Your task to perform on an android device: Empty the shopping cart on newegg.com. Search for "macbook pro 13 inch" on newegg.com, select the first entry, add it to the cart, then select checkout. Image 0: 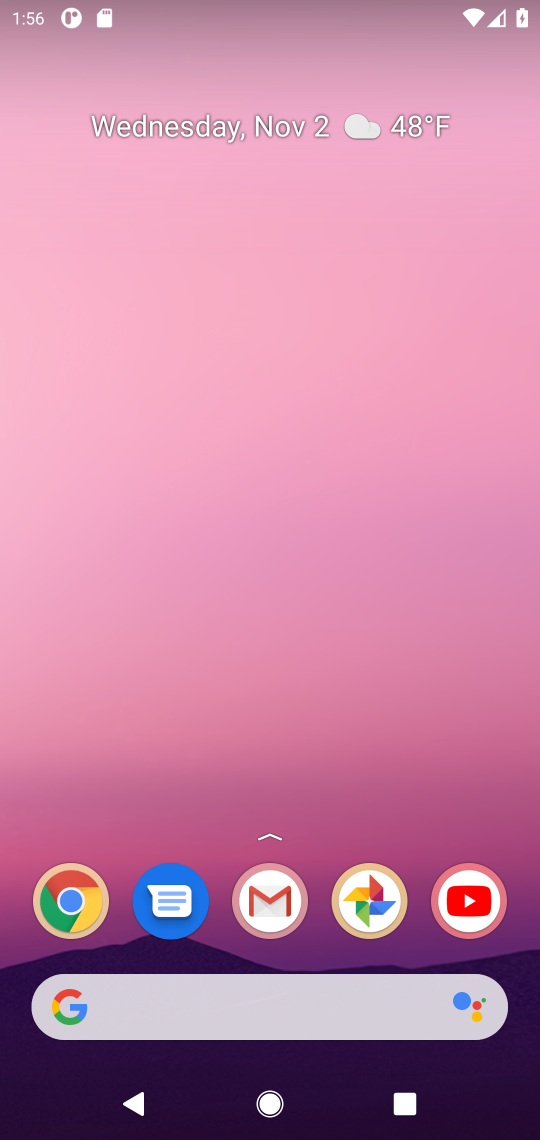
Step 0: drag from (318, 957) to (393, 219)
Your task to perform on an android device: Empty the shopping cart on newegg.com. Search for "macbook pro 13 inch" on newegg.com, select the first entry, add it to the cart, then select checkout. Image 1: 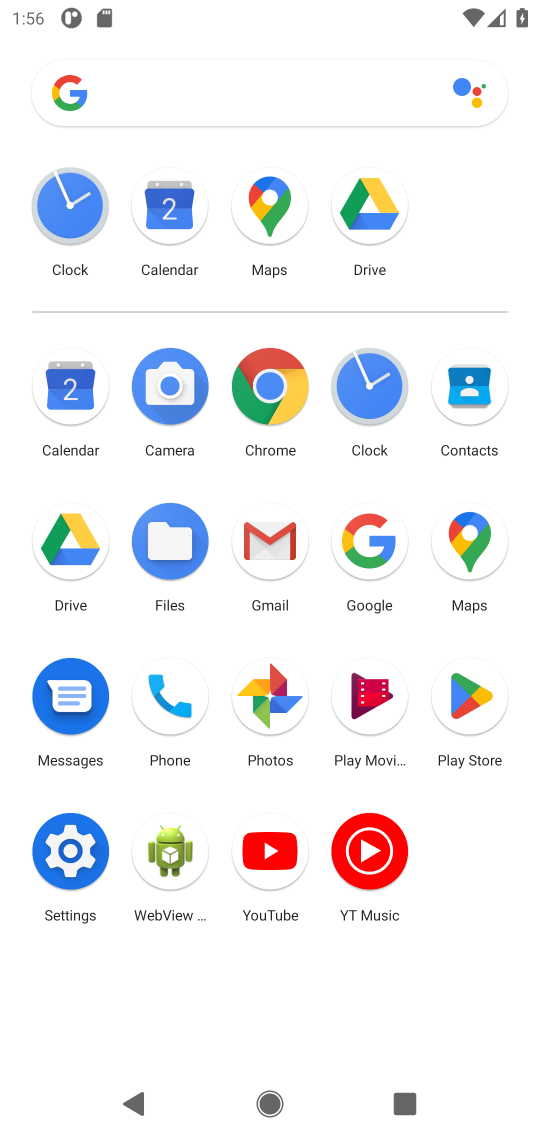
Step 1: click (271, 387)
Your task to perform on an android device: Empty the shopping cart on newegg.com. Search for "macbook pro 13 inch" on newegg.com, select the first entry, add it to the cart, then select checkout. Image 2: 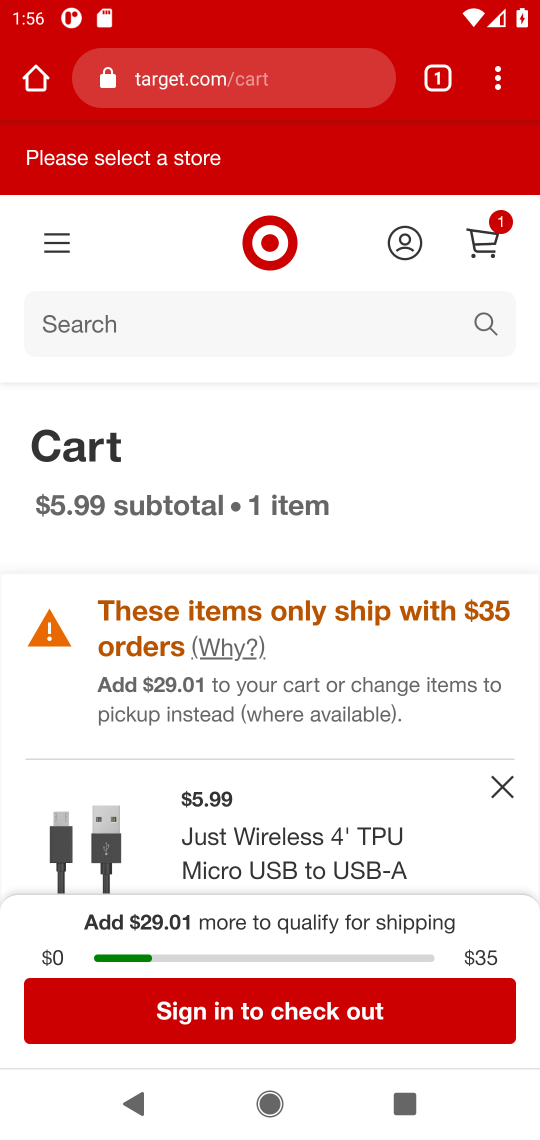
Step 2: click (341, 91)
Your task to perform on an android device: Empty the shopping cart on newegg.com. Search for "macbook pro 13 inch" on newegg.com, select the first entry, add it to the cart, then select checkout. Image 3: 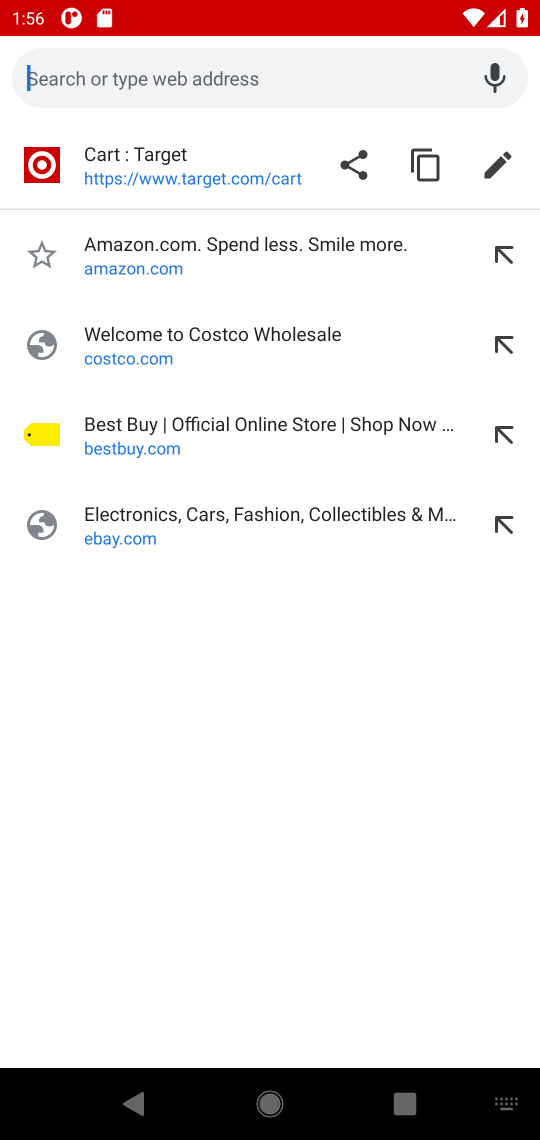
Step 3: type "newegg.com"
Your task to perform on an android device: Empty the shopping cart on newegg.com. Search for "macbook pro 13 inch" on newegg.com, select the first entry, add it to the cart, then select checkout. Image 4: 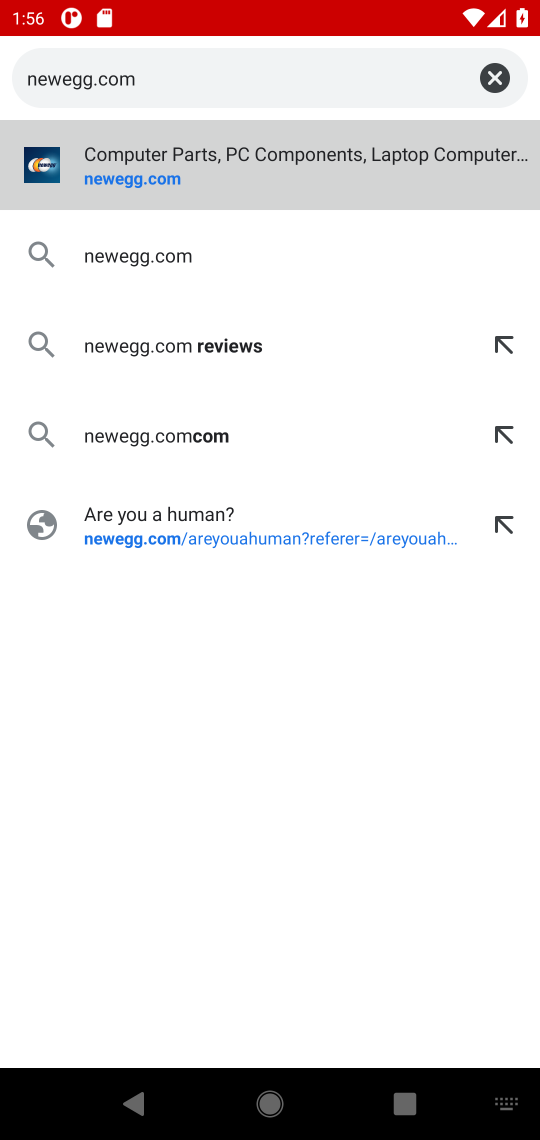
Step 4: press enter
Your task to perform on an android device: Empty the shopping cart on newegg.com. Search for "macbook pro 13 inch" on newegg.com, select the first entry, add it to the cart, then select checkout. Image 5: 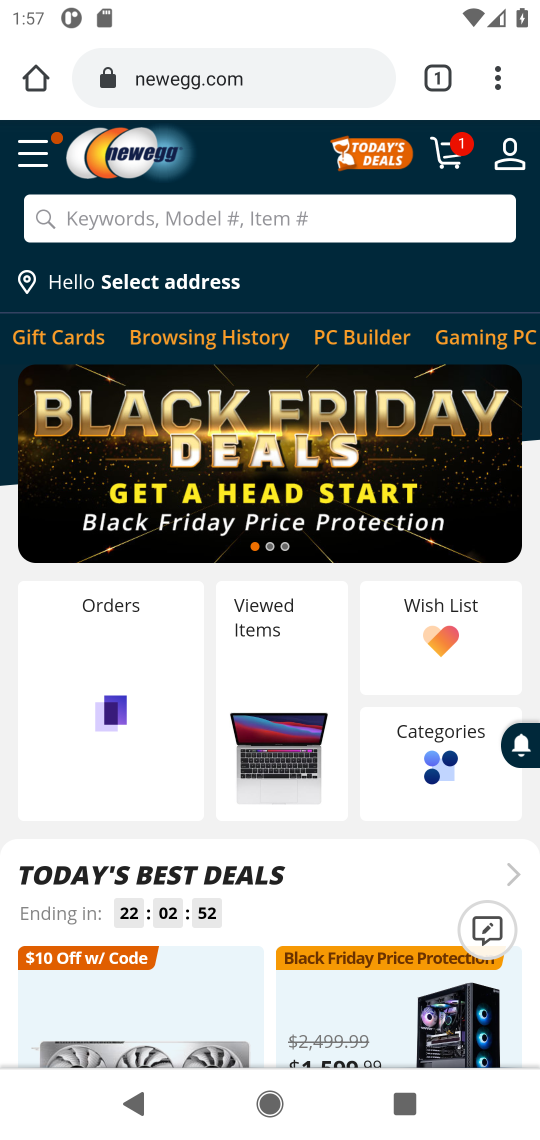
Step 5: click (442, 153)
Your task to perform on an android device: Empty the shopping cart on newegg.com. Search for "macbook pro 13 inch" on newegg.com, select the first entry, add it to the cart, then select checkout. Image 6: 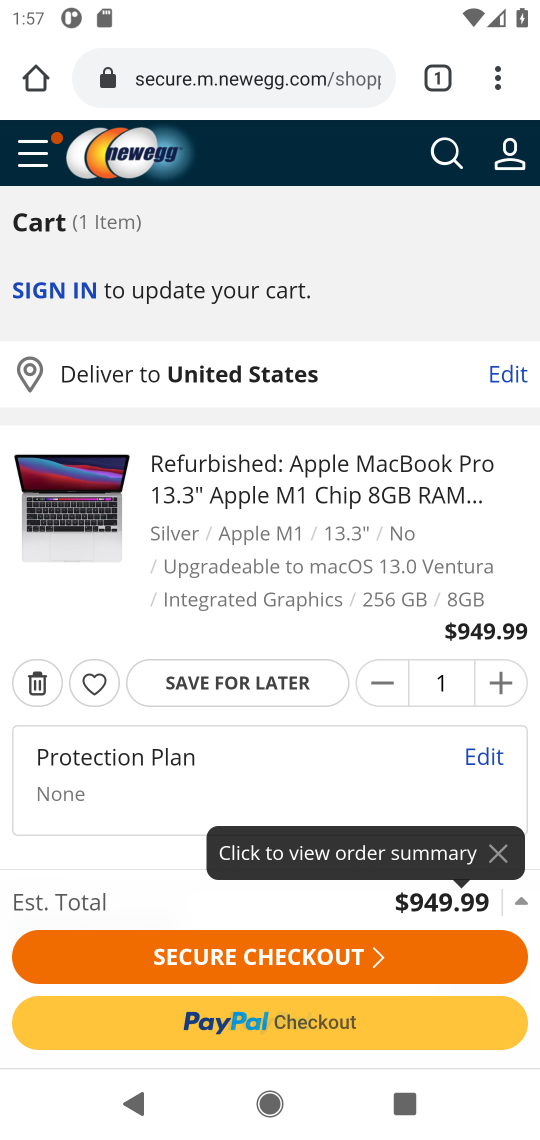
Step 6: click (31, 692)
Your task to perform on an android device: Empty the shopping cart on newegg.com. Search for "macbook pro 13 inch" on newegg.com, select the first entry, add it to the cart, then select checkout. Image 7: 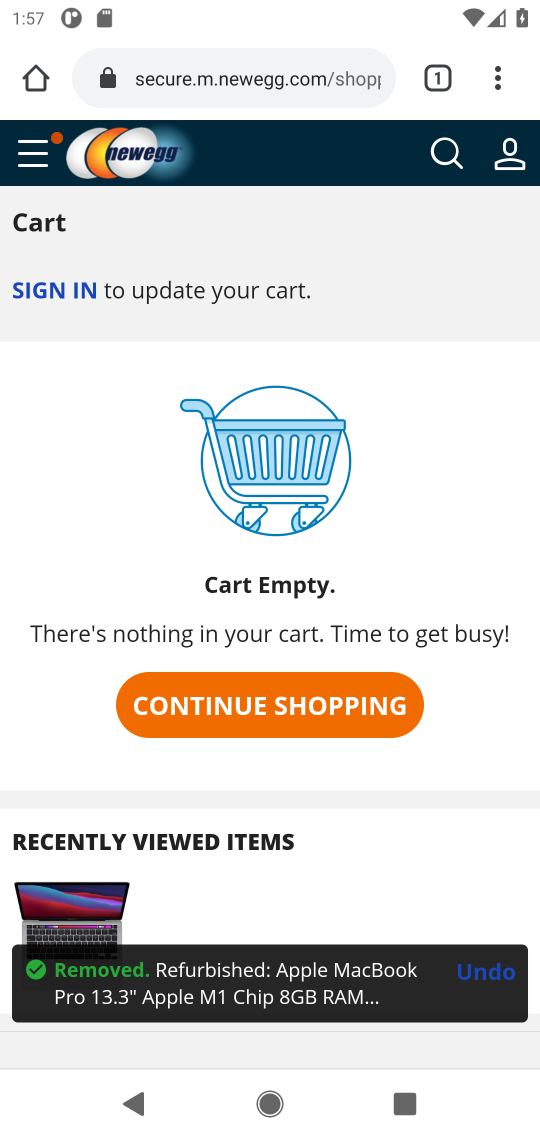
Step 7: click (452, 160)
Your task to perform on an android device: Empty the shopping cart on newegg.com. Search for "macbook pro 13 inch" on newegg.com, select the first entry, add it to the cart, then select checkout. Image 8: 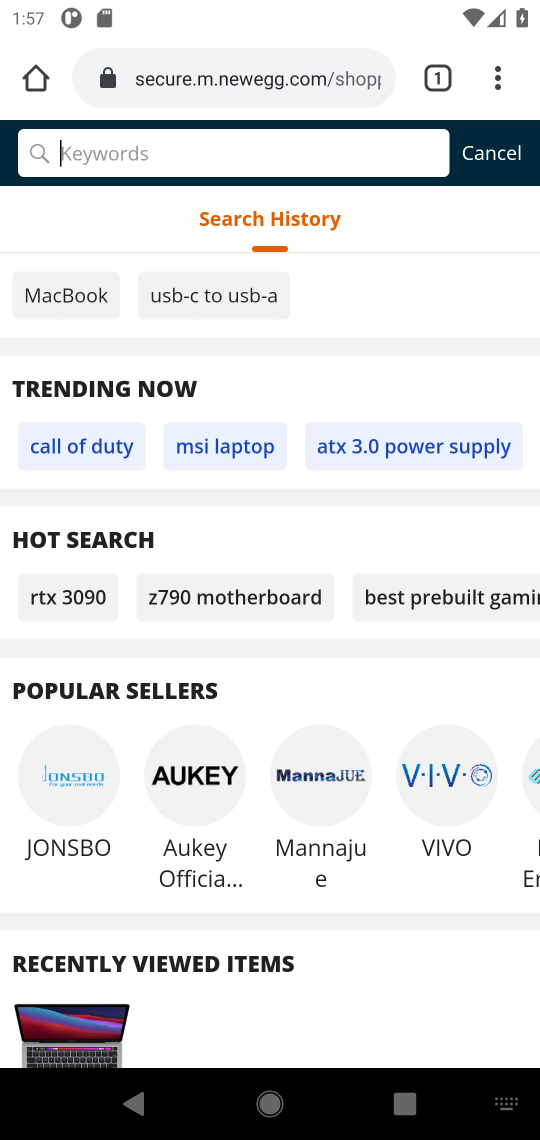
Step 8: type "macbook pro 13 inch"
Your task to perform on an android device: Empty the shopping cart on newegg.com. Search for "macbook pro 13 inch" on newegg.com, select the first entry, add it to the cart, then select checkout. Image 9: 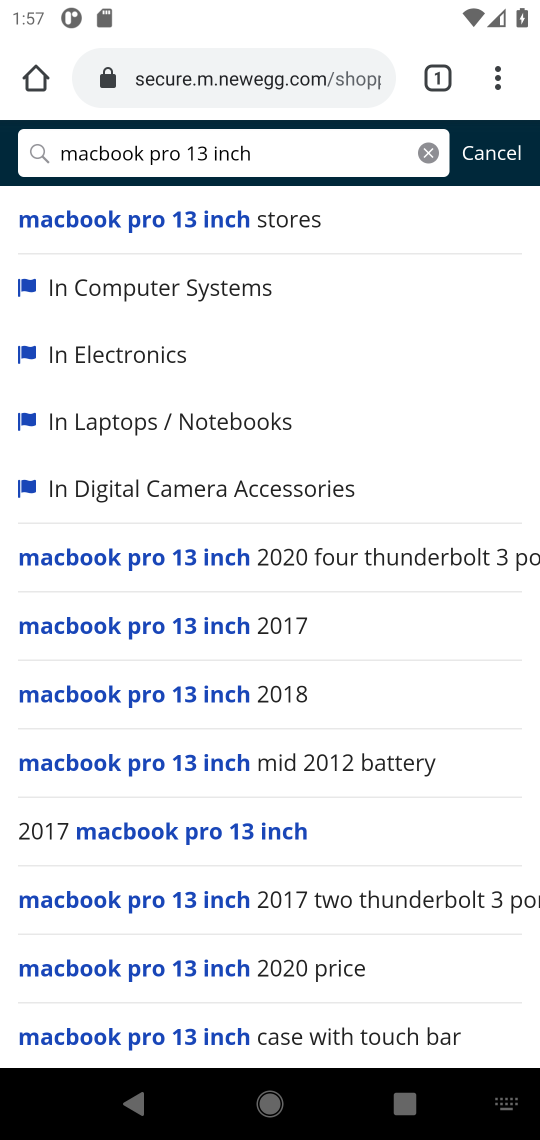
Step 9: press enter
Your task to perform on an android device: Empty the shopping cart on newegg.com. Search for "macbook pro 13 inch" on newegg.com, select the first entry, add it to the cart, then select checkout. Image 10: 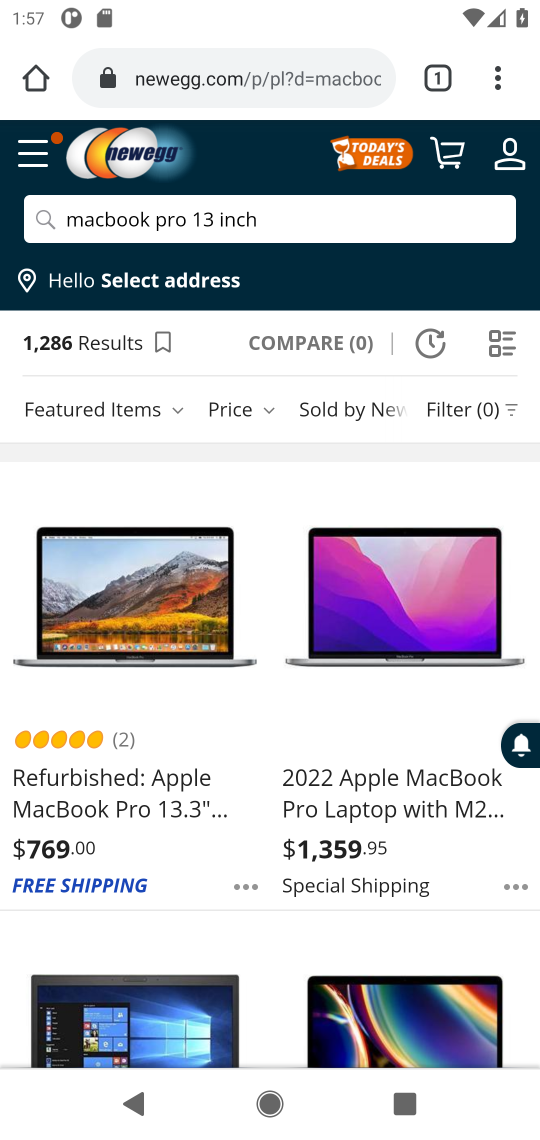
Step 10: drag from (241, 891) to (278, 560)
Your task to perform on an android device: Empty the shopping cart on newegg.com. Search for "macbook pro 13 inch" on newegg.com, select the first entry, add it to the cart, then select checkout. Image 11: 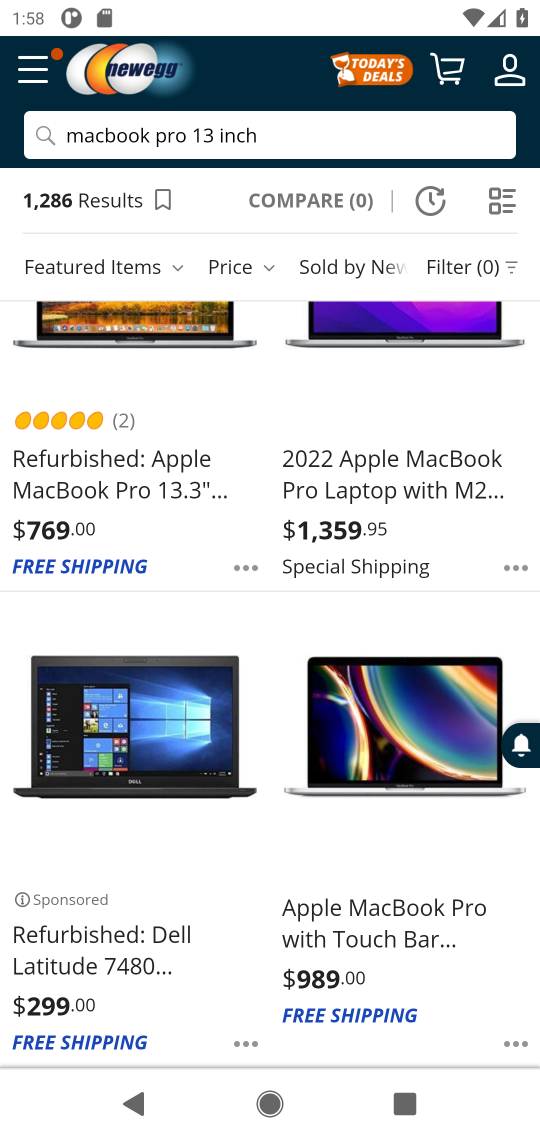
Step 11: drag from (420, 428) to (400, 859)
Your task to perform on an android device: Empty the shopping cart on newegg.com. Search for "macbook pro 13 inch" on newegg.com, select the first entry, add it to the cart, then select checkout. Image 12: 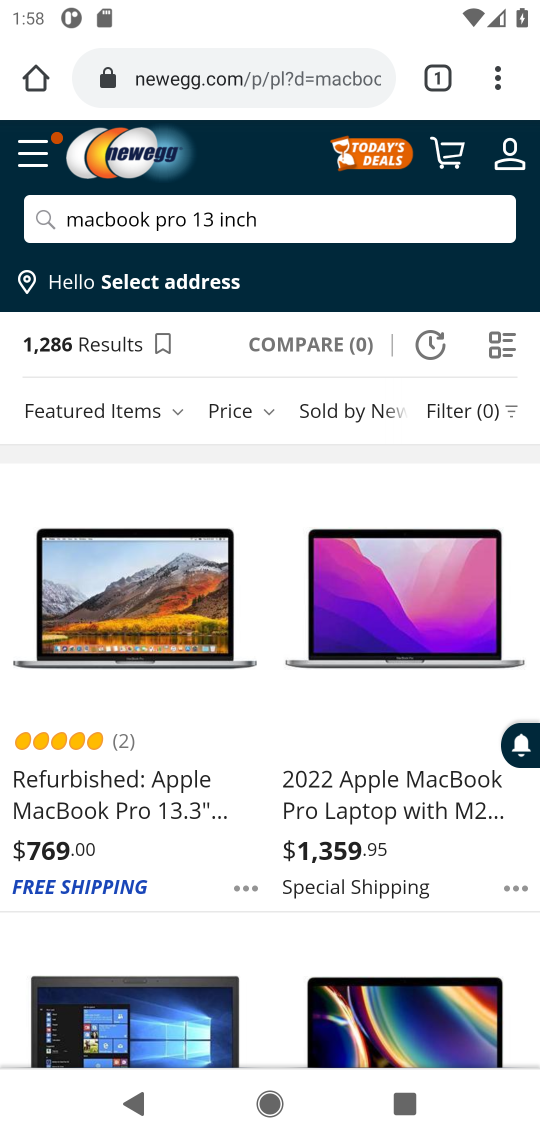
Step 12: drag from (299, 756) to (387, 424)
Your task to perform on an android device: Empty the shopping cart on newegg.com. Search for "macbook pro 13 inch" on newegg.com, select the first entry, add it to the cart, then select checkout. Image 13: 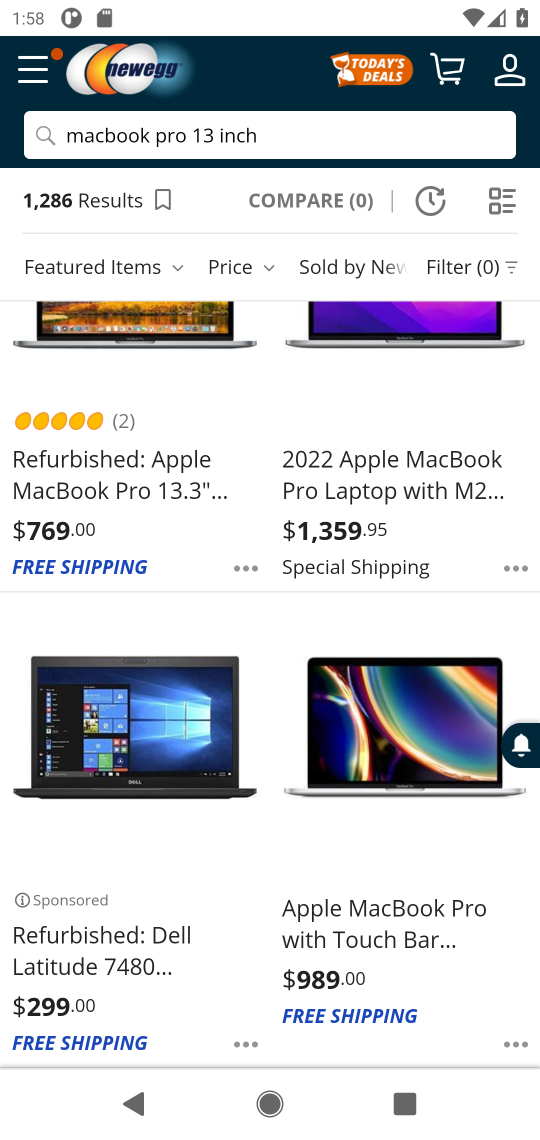
Step 13: drag from (328, 994) to (235, 1058)
Your task to perform on an android device: Empty the shopping cart on newegg.com. Search for "macbook pro 13 inch" on newegg.com, select the first entry, add it to the cart, then select checkout. Image 14: 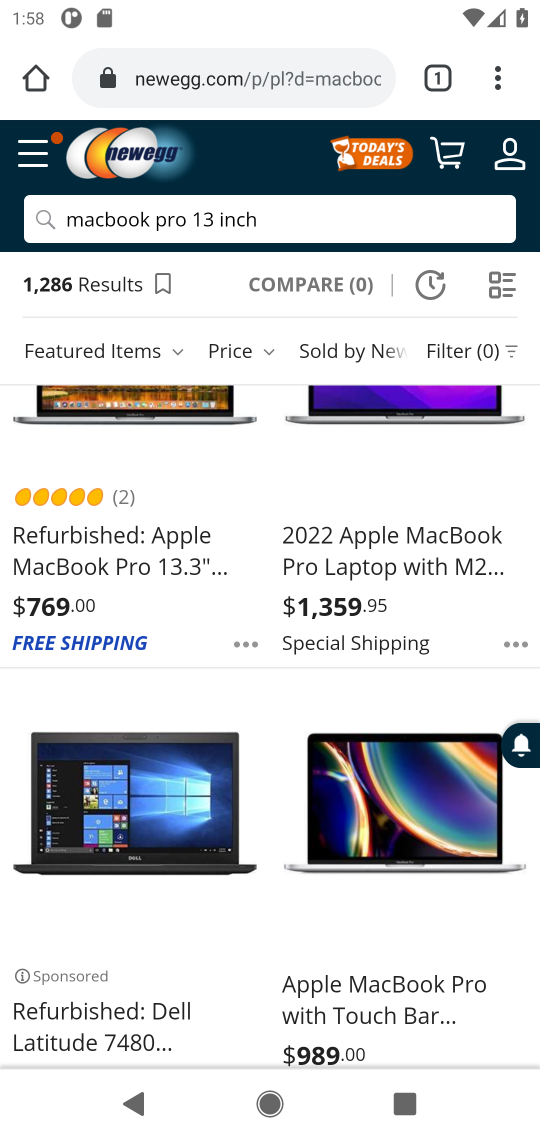
Step 14: drag from (267, 478) to (286, 1047)
Your task to perform on an android device: Empty the shopping cart on newegg.com. Search for "macbook pro 13 inch" on newegg.com, select the first entry, add it to the cart, then select checkout. Image 15: 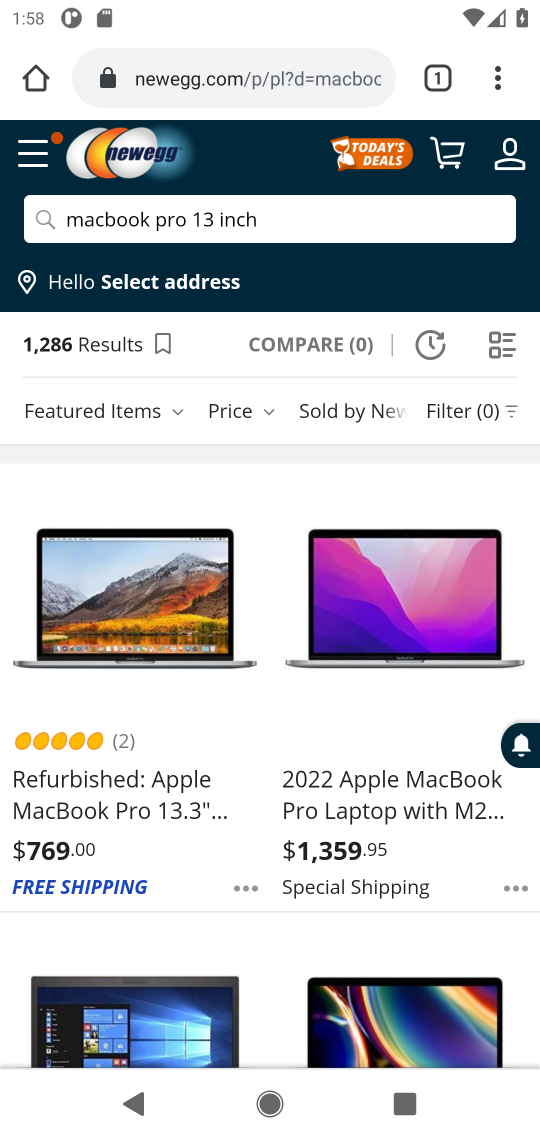
Step 15: drag from (399, 724) to (383, 579)
Your task to perform on an android device: Empty the shopping cart on newegg.com. Search for "macbook pro 13 inch" on newegg.com, select the first entry, add it to the cart, then select checkout. Image 16: 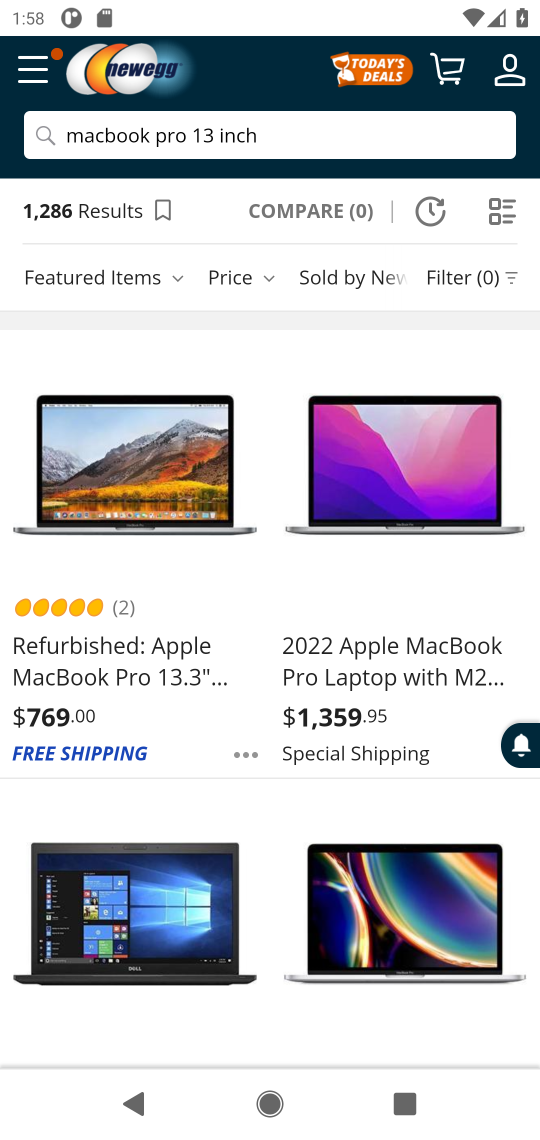
Step 16: drag from (391, 545) to (385, 723)
Your task to perform on an android device: Empty the shopping cart on newegg.com. Search for "macbook pro 13 inch" on newegg.com, select the first entry, add it to the cart, then select checkout. Image 17: 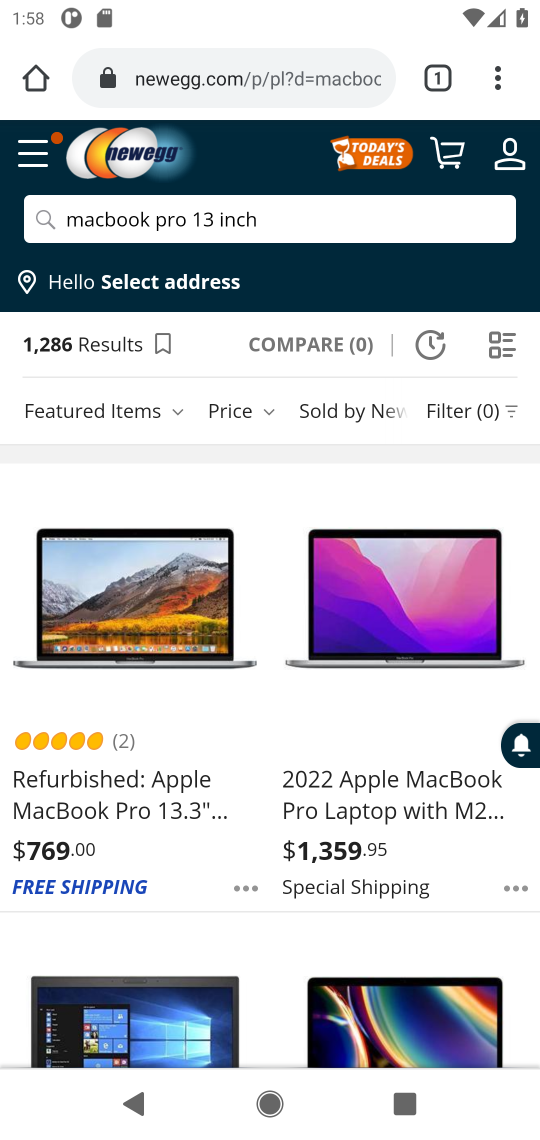
Step 17: click (406, 805)
Your task to perform on an android device: Empty the shopping cart on newegg.com. Search for "macbook pro 13 inch" on newegg.com, select the first entry, add it to the cart, then select checkout. Image 18: 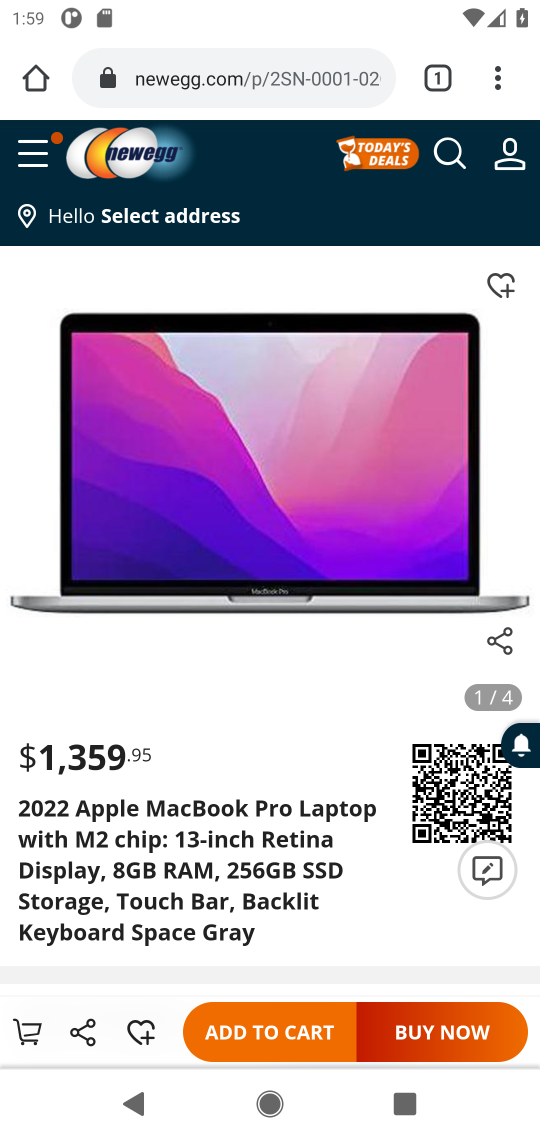
Step 18: click (244, 1018)
Your task to perform on an android device: Empty the shopping cart on newegg.com. Search for "macbook pro 13 inch" on newegg.com, select the first entry, add it to the cart, then select checkout. Image 19: 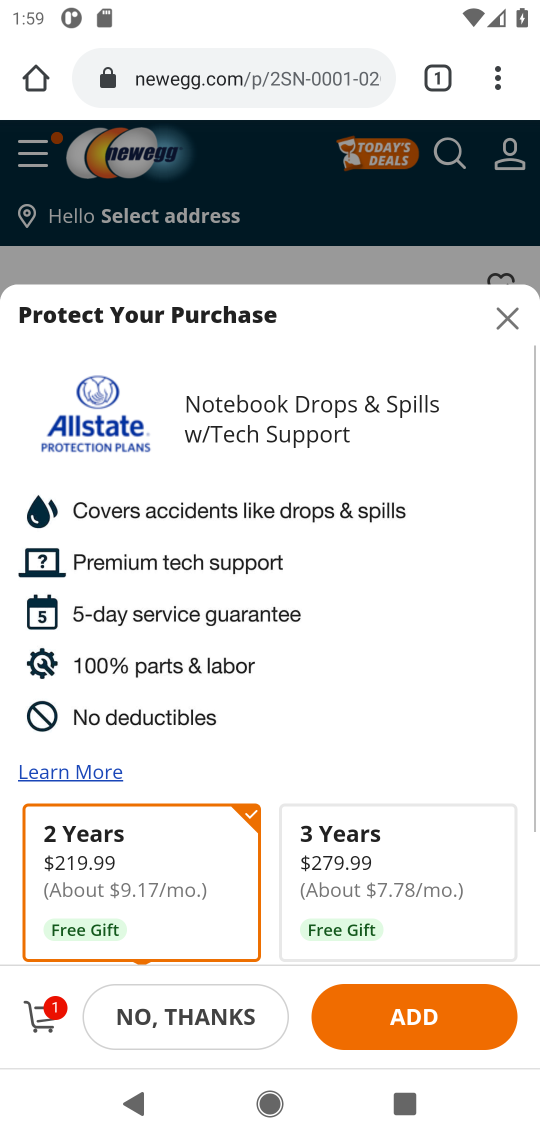
Step 19: click (245, 1011)
Your task to perform on an android device: Empty the shopping cart on newegg.com. Search for "macbook pro 13 inch" on newegg.com, select the first entry, add it to the cart, then select checkout. Image 20: 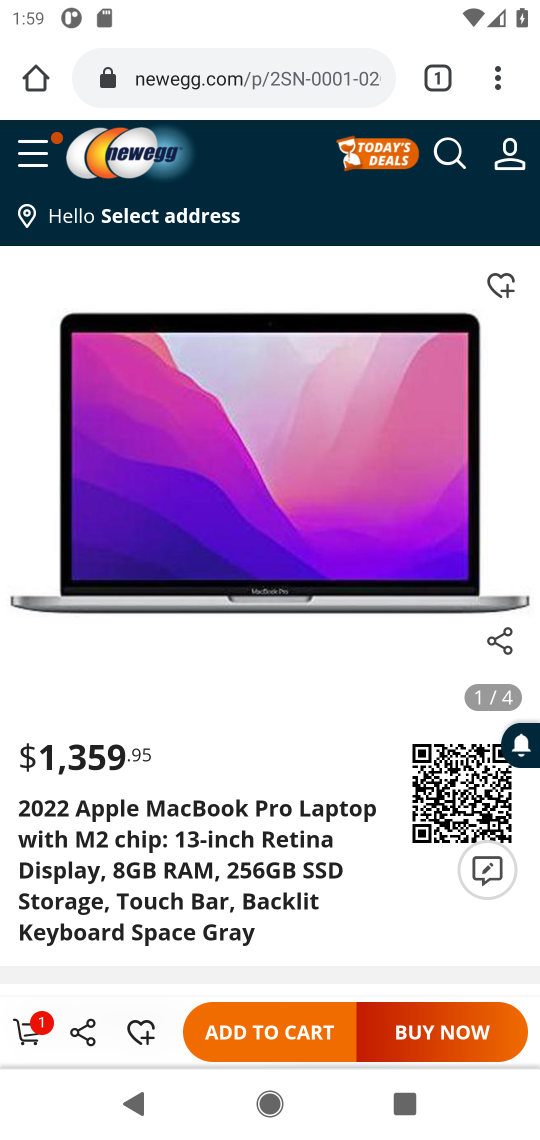
Step 20: click (39, 1013)
Your task to perform on an android device: Empty the shopping cart on newegg.com. Search for "macbook pro 13 inch" on newegg.com, select the first entry, add it to the cart, then select checkout. Image 21: 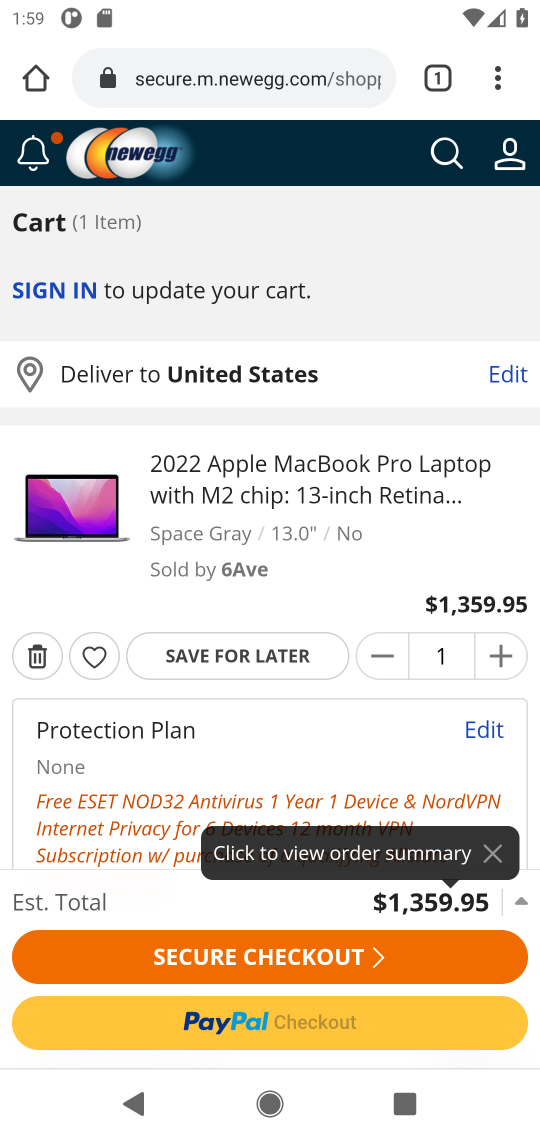
Step 21: click (185, 949)
Your task to perform on an android device: Empty the shopping cart on newegg.com. Search for "macbook pro 13 inch" on newegg.com, select the first entry, add it to the cart, then select checkout. Image 22: 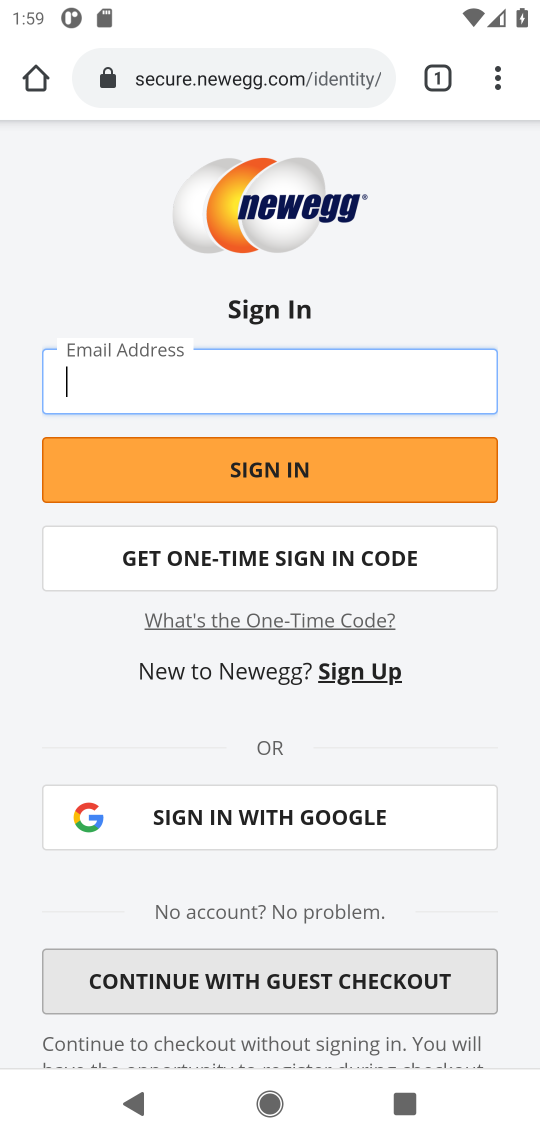
Step 22: task complete